Your task to perform on an android device: turn off location Image 0: 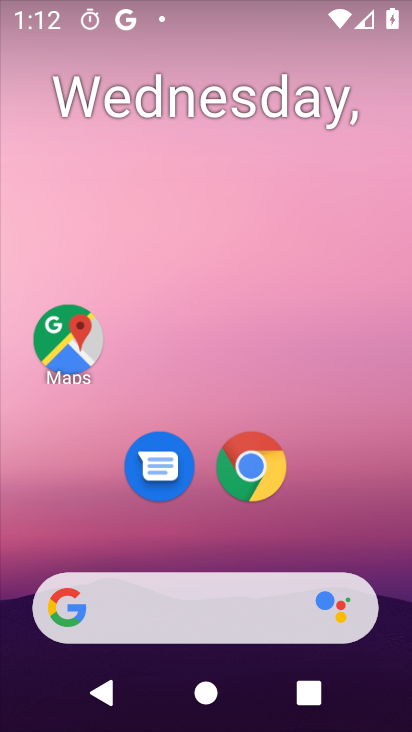
Step 0: drag from (339, 503) to (373, 176)
Your task to perform on an android device: turn off location Image 1: 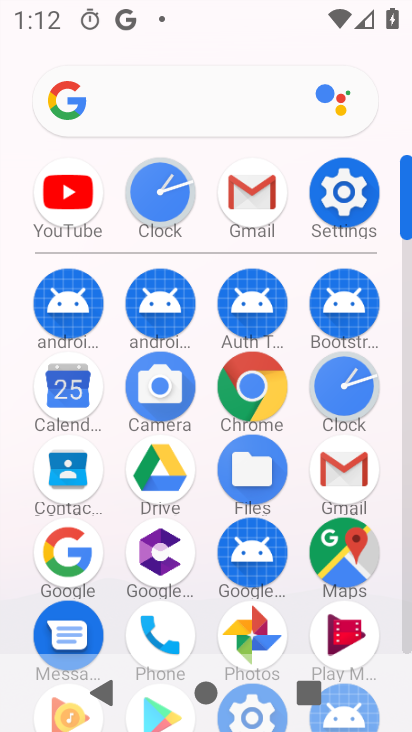
Step 1: click (339, 202)
Your task to perform on an android device: turn off location Image 2: 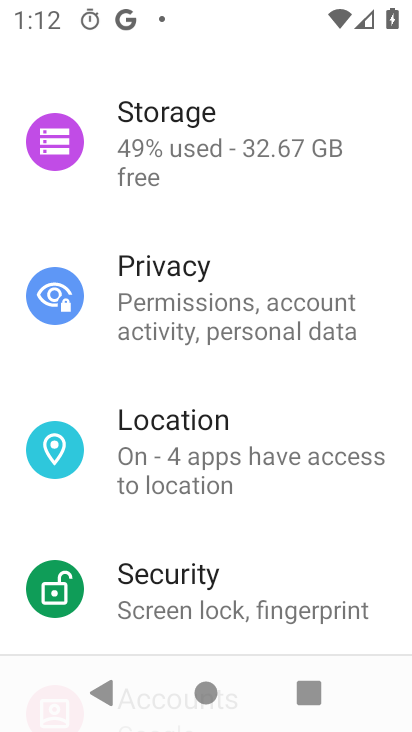
Step 2: click (214, 478)
Your task to perform on an android device: turn off location Image 3: 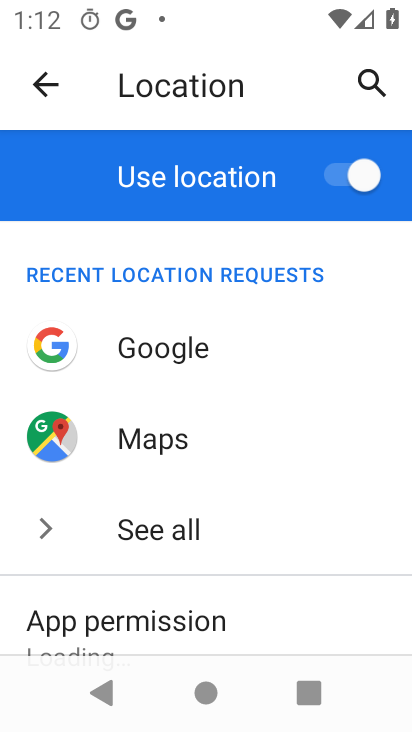
Step 3: click (370, 173)
Your task to perform on an android device: turn off location Image 4: 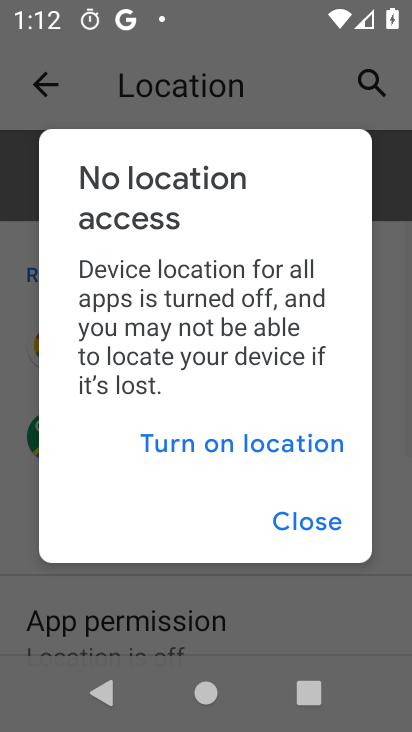
Step 4: task complete